Your task to perform on an android device: Open Youtube and go to the subscriptions tab Image 0: 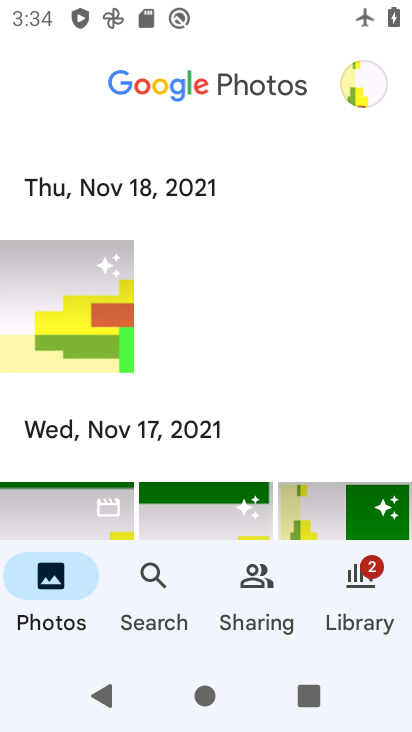
Step 0: press back button
Your task to perform on an android device: Open Youtube and go to the subscriptions tab Image 1: 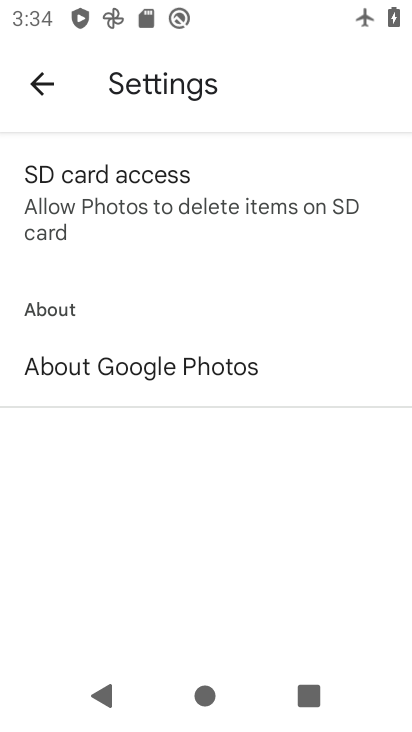
Step 1: press home button
Your task to perform on an android device: Open Youtube and go to the subscriptions tab Image 2: 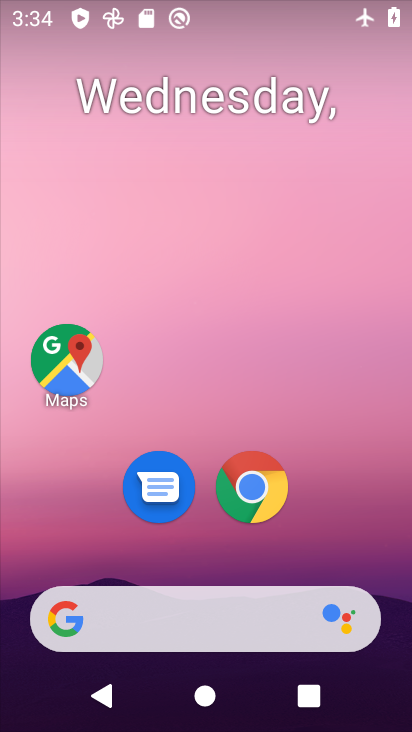
Step 2: drag from (369, 518) to (377, 296)
Your task to perform on an android device: Open Youtube and go to the subscriptions tab Image 3: 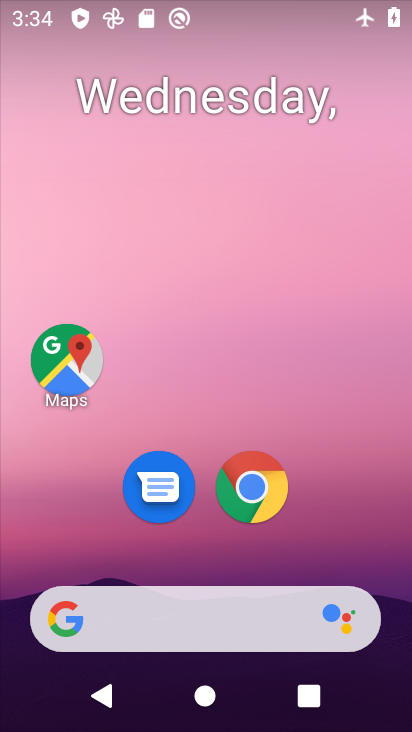
Step 3: drag from (347, 526) to (354, 210)
Your task to perform on an android device: Open Youtube and go to the subscriptions tab Image 4: 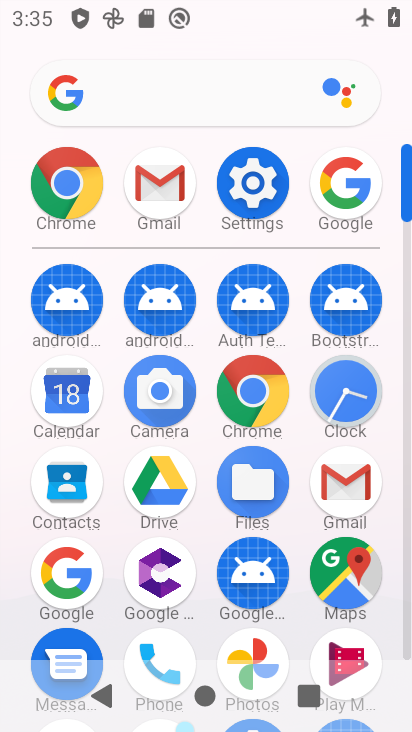
Step 4: drag from (386, 621) to (383, 391)
Your task to perform on an android device: Open Youtube and go to the subscriptions tab Image 5: 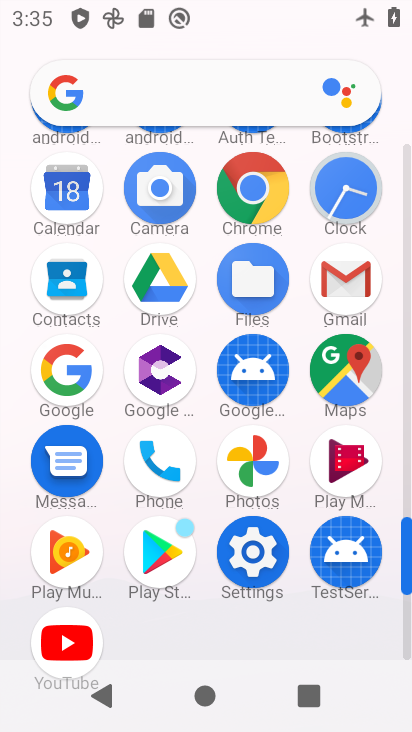
Step 5: click (63, 640)
Your task to perform on an android device: Open Youtube and go to the subscriptions tab Image 6: 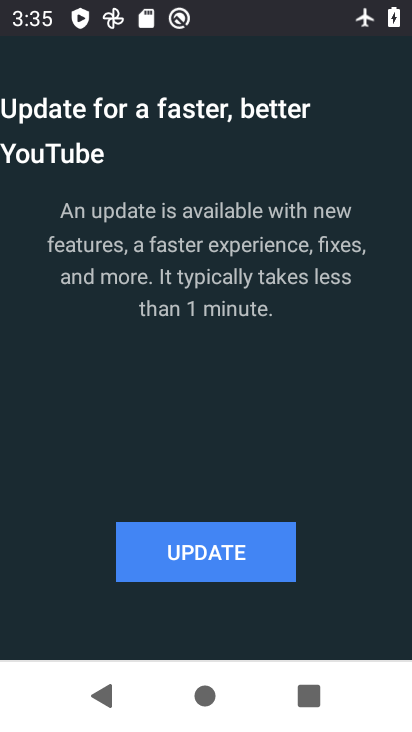
Step 6: click (232, 568)
Your task to perform on an android device: Open Youtube and go to the subscriptions tab Image 7: 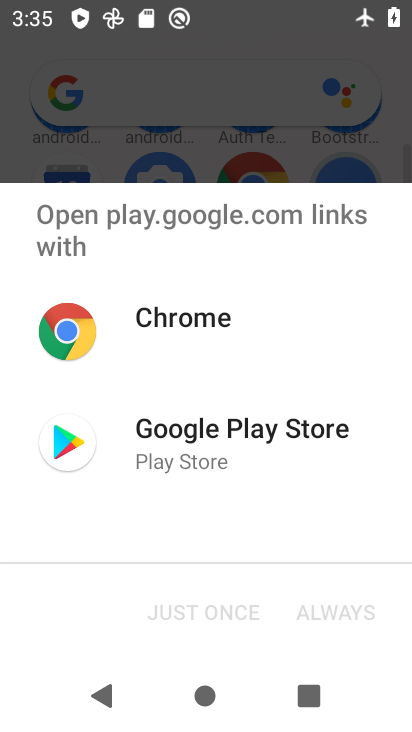
Step 7: click (195, 453)
Your task to perform on an android device: Open Youtube and go to the subscriptions tab Image 8: 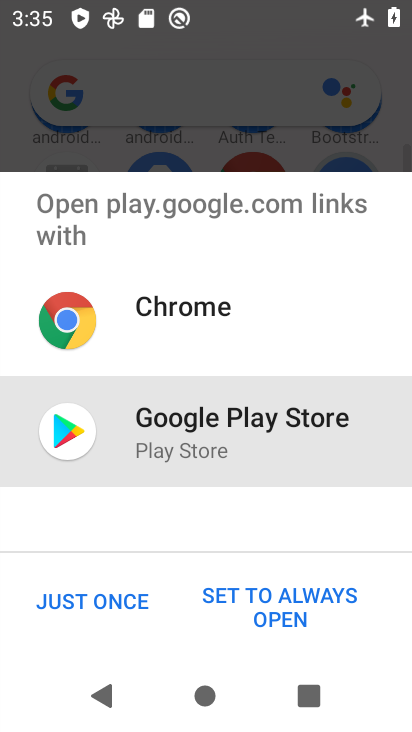
Step 8: click (123, 603)
Your task to perform on an android device: Open Youtube and go to the subscriptions tab Image 9: 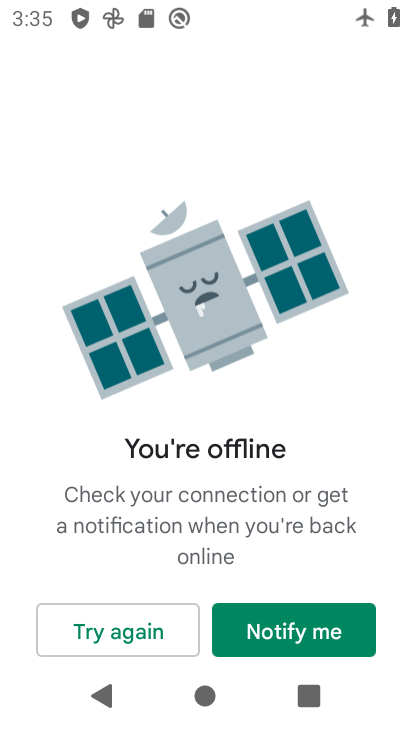
Step 9: task complete